Your task to perform on an android device: open app "Grab" (install if not already installed) Image 0: 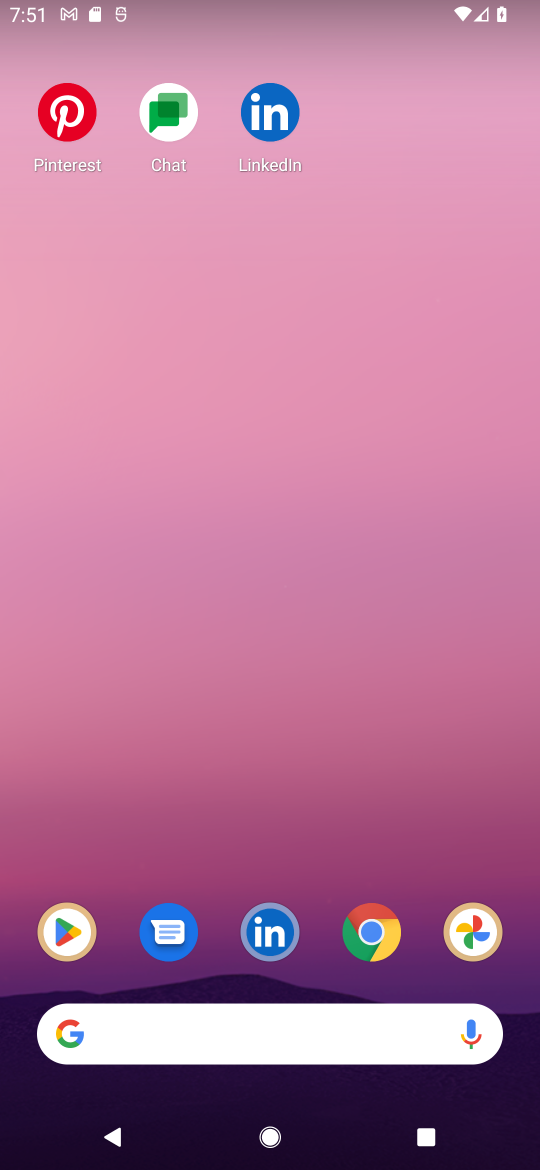
Step 0: click (73, 936)
Your task to perform on an android device: open app "Grab" (install if not already installed) Image 1: 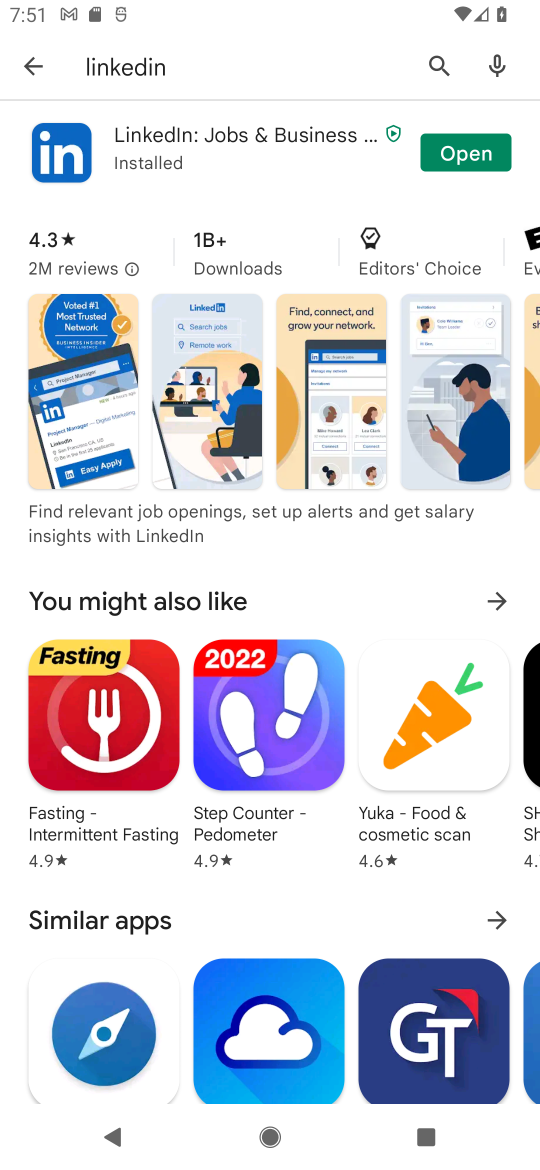
Step 1: click (214, 65)
Your task to perform on an android device: open app "Grab" (install if not already installed) Image 2: 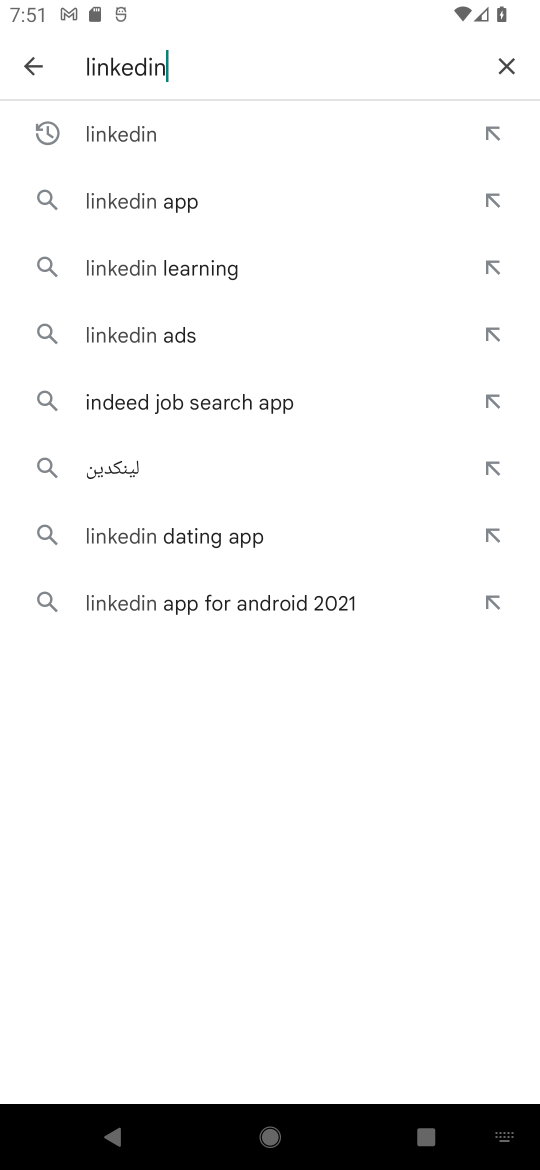
Step 2: click (511, 67)
Your task to perform on an android device: open app "Grab" (install if not already installed) Image 3: 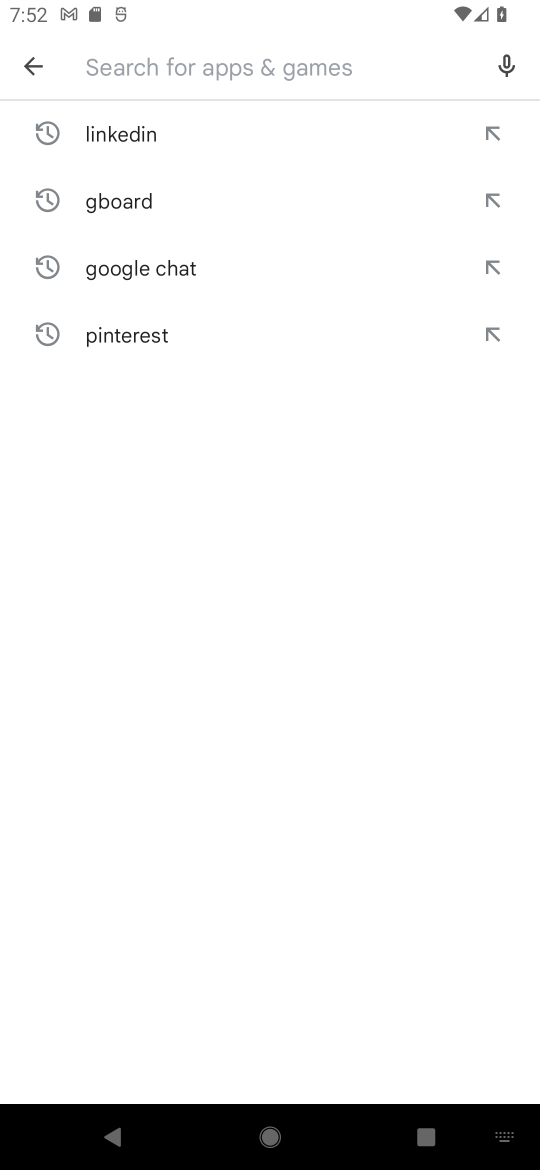
Step 3: type "grab"
Your task to perform on an android device: open app "Grab" (install if not already installed) Image 4: 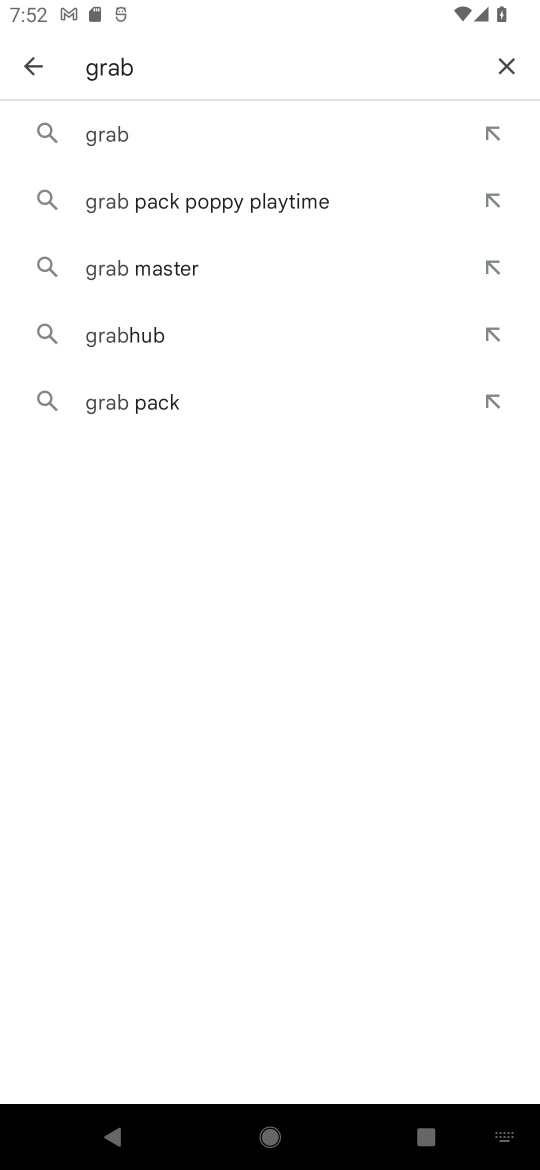
Step 4: click (113, 142)
Your task to perform on an android device: open app "Grab" (install if not already installed) Image 5: 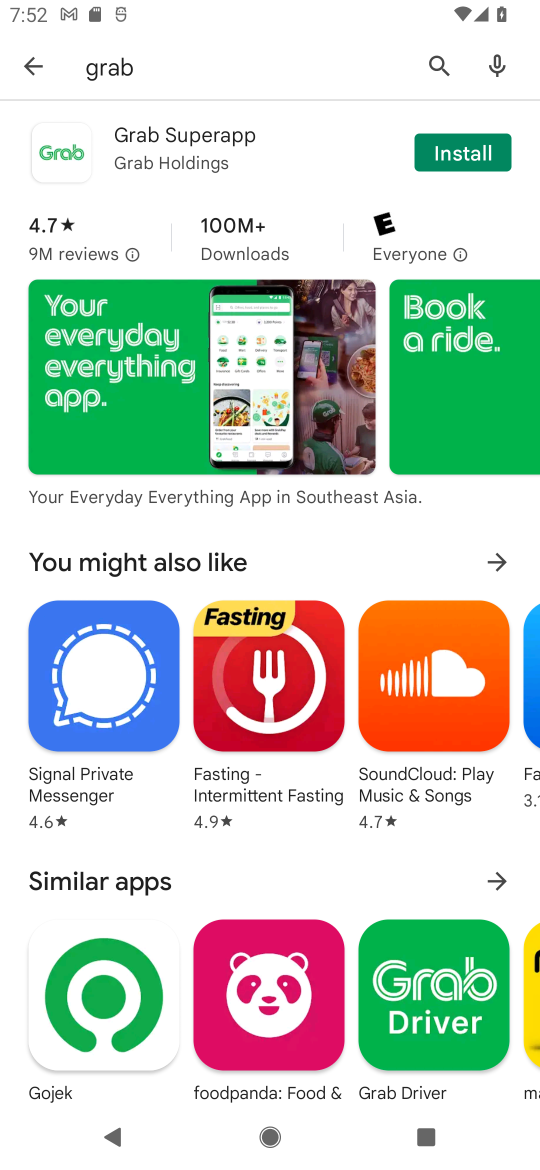
Step 5: click (490, 156)
Your task to perform on an android device: open app "Grab" (install if not already installed) Image 6: 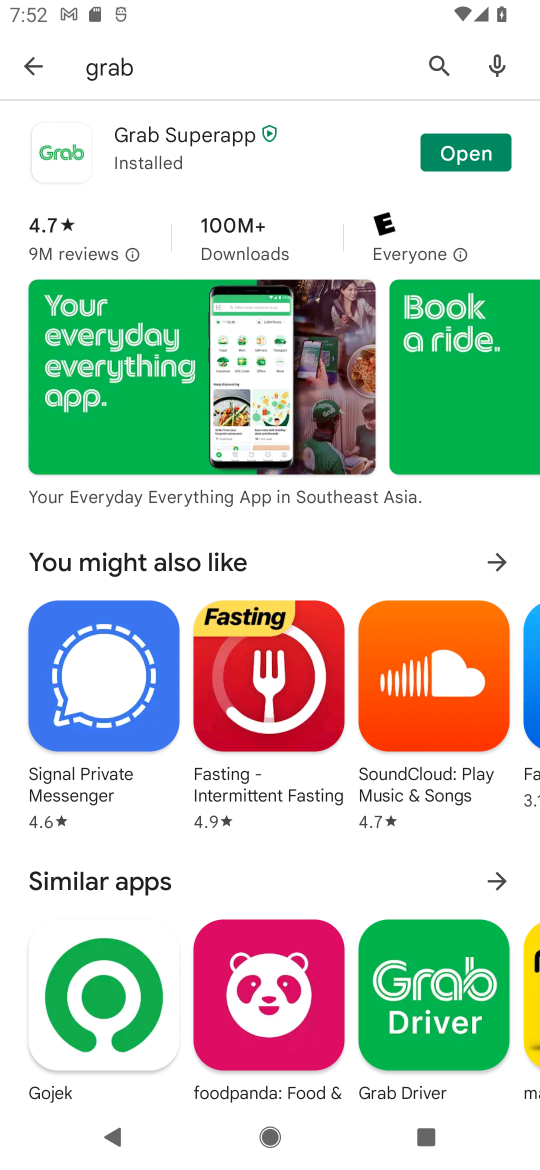
Step 6: click (461, 140)
Your task to perform on an android device: open app "Grab" (install if not already installed) Image 7: 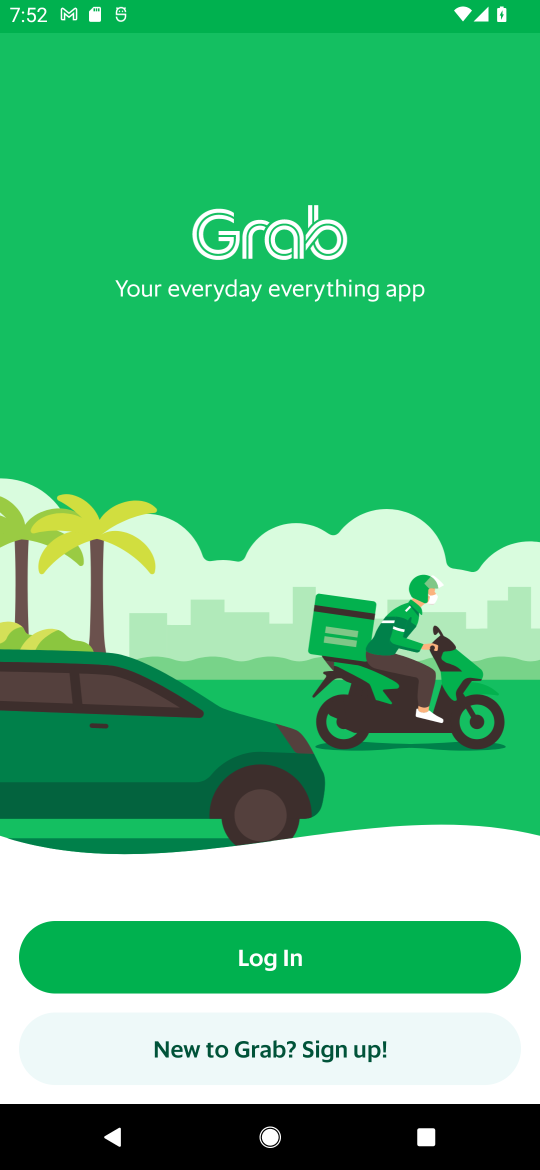
Step 7: task complete